Your task to perform on an android device: Go to Yahoo.com Image 0: 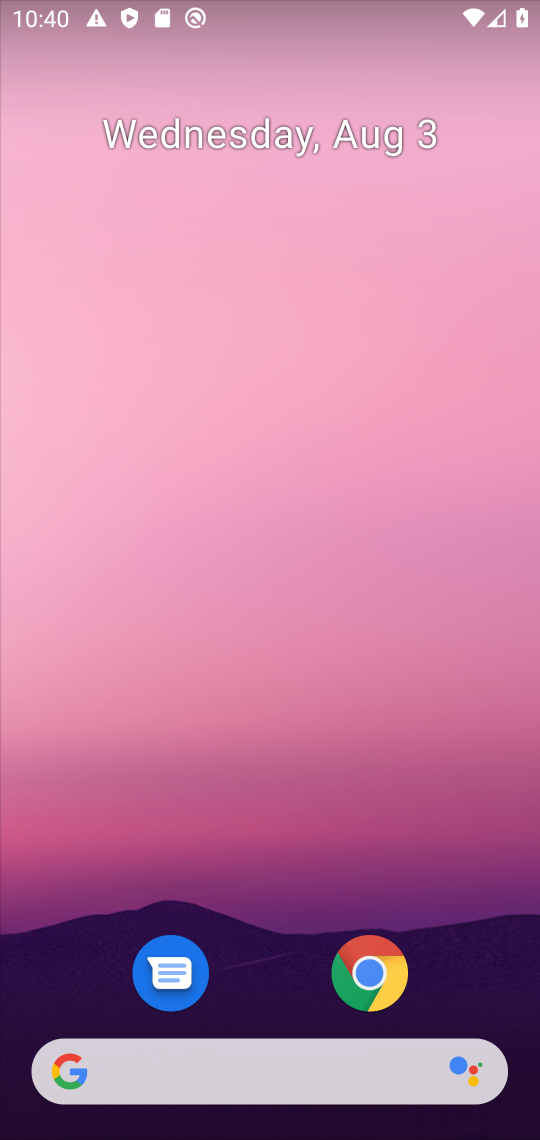
Step 0: click (358, 977)
Your task to perform on an android device: Go to Yahoo.com Image 1: 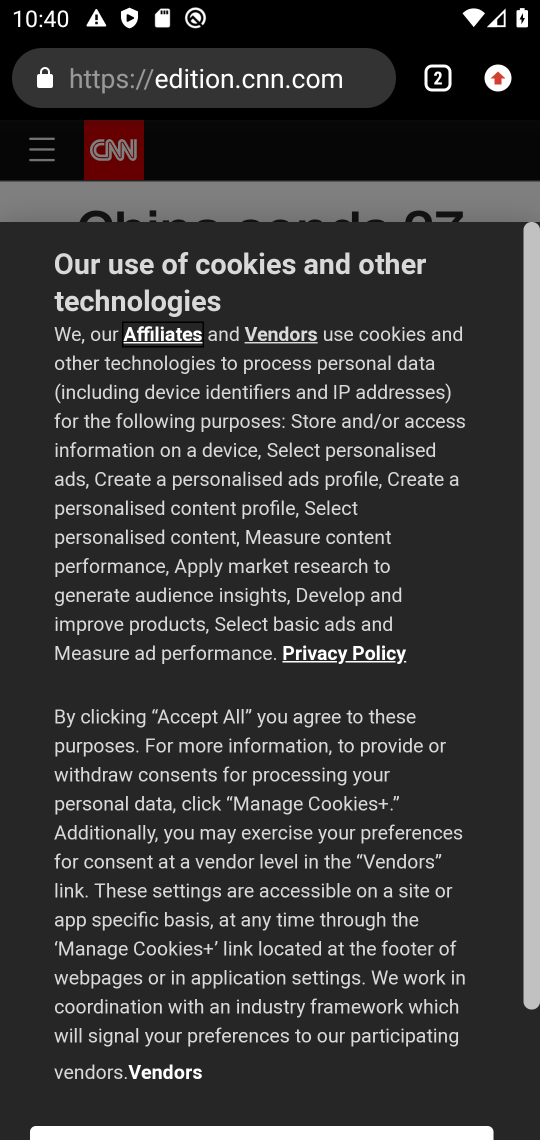
Step 1: click (430, 86)
Your task to perform on an android device: Go to Yahoo.com Image 2: 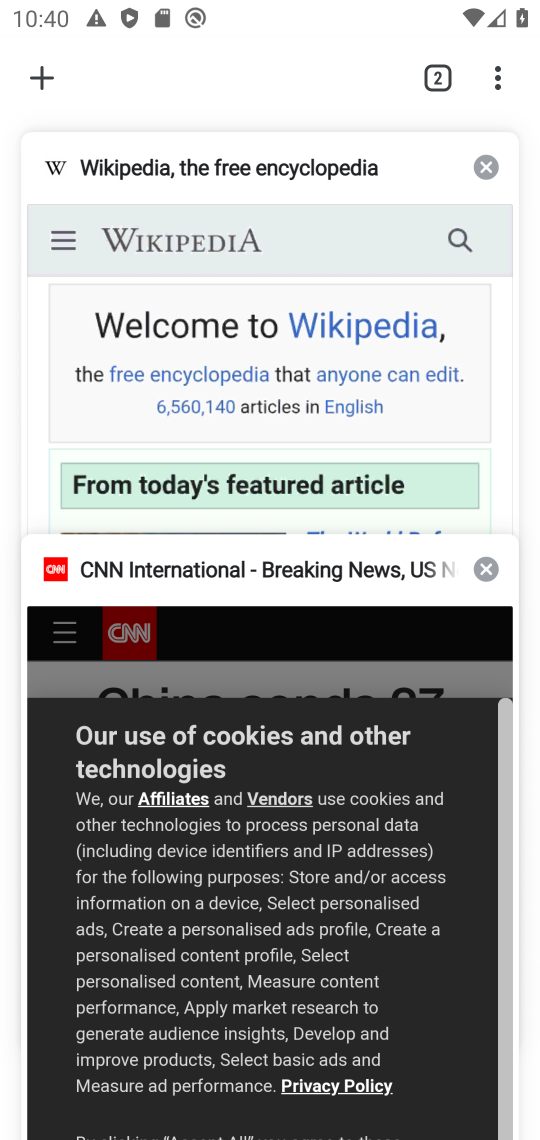
Step 2: click (27, 75)
Your task to perform on an android device: Go to Yahoo.com Image 3: 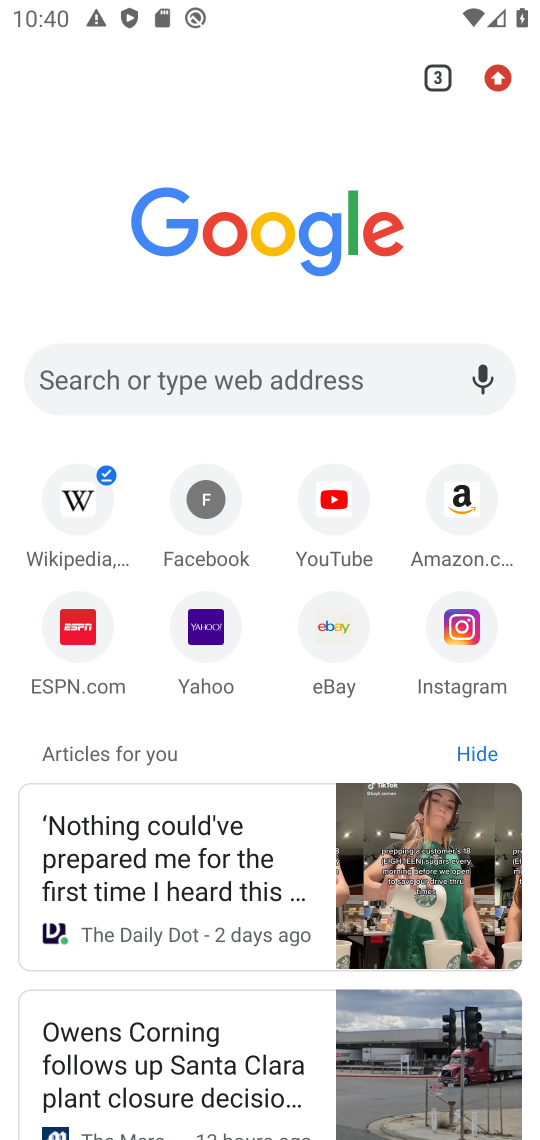
Step 3: click (200, 641)
Your task to perform on an android device: Go to Yahoo.com Image 4: 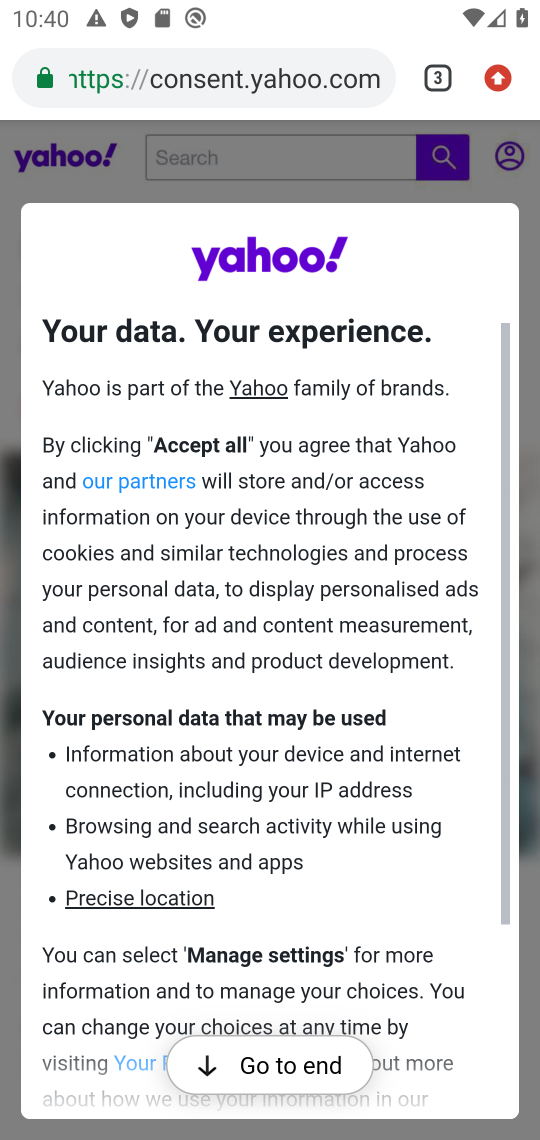
Step 4: task complete